Your task to perform on an android device: Open internet settings Image 0: 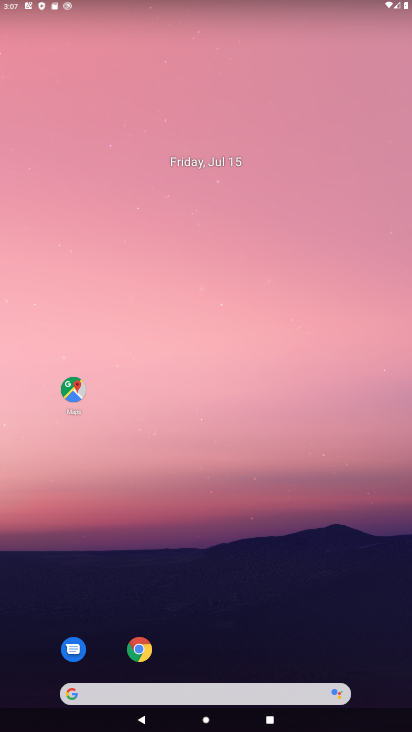
Step 0: drag from (330, 506) to (311, 188)
Your task to perform on an android device: Open internet settings Image 1: 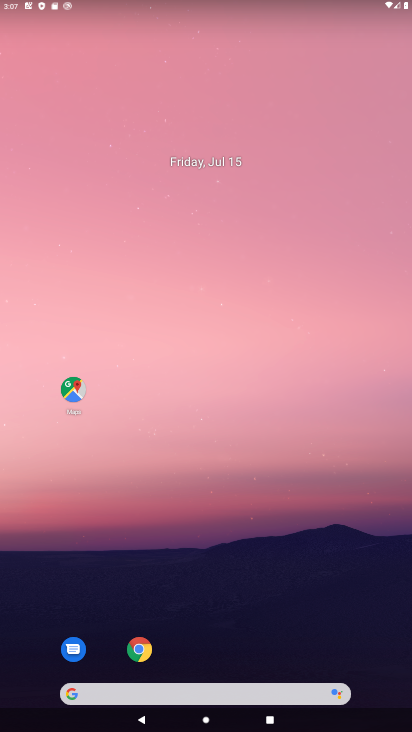
Step 1: drag from (323, 598) to (268, 133)
Your task to perform on an android device: Open internet settings Image 2: 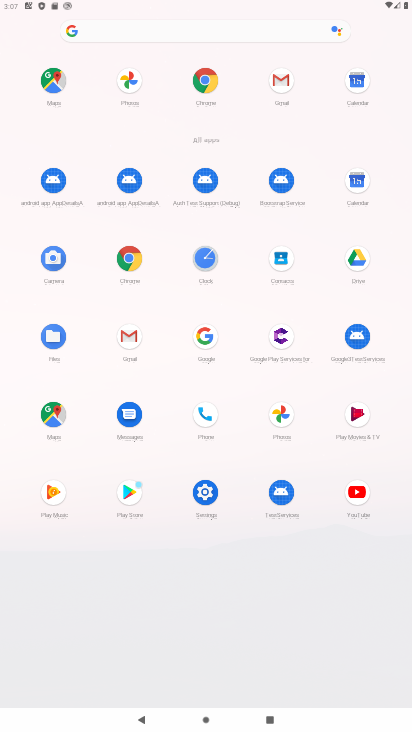
Step 2: click (208, 494)
Your task to perform on an android device: Open internet settings Image 3: 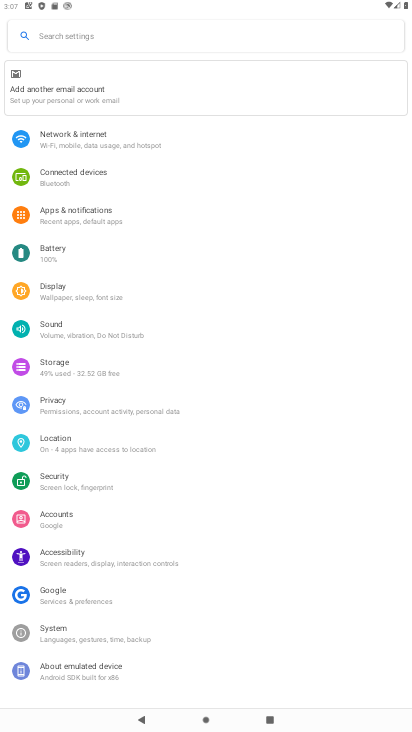
Step 3: click (80, 134)
Your task to perform on an android device: Open internet settings Image 4: 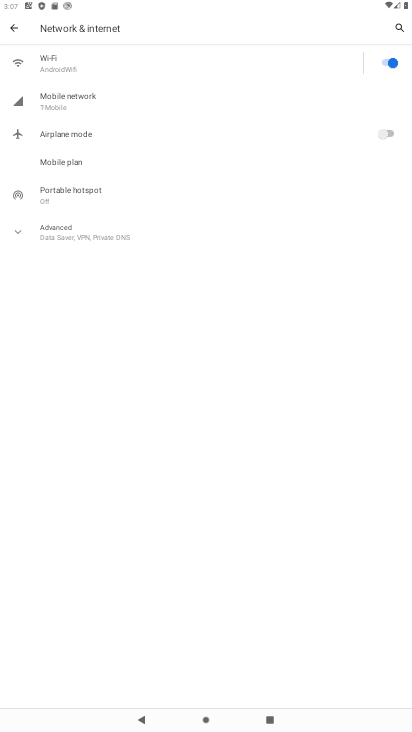
Step 4: click (99, 236)
Your task to perform on an android device: Open internet settings Image 5: 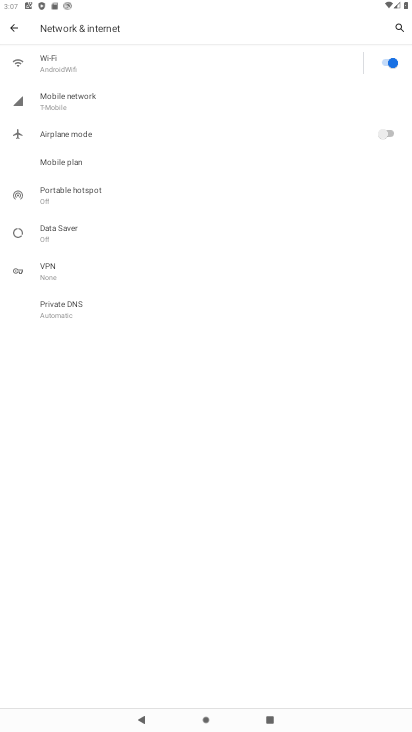
Step 5: task complete